Your task to perform on an android device: install app "NewsBreak: Local News & Alerts" Image 0: 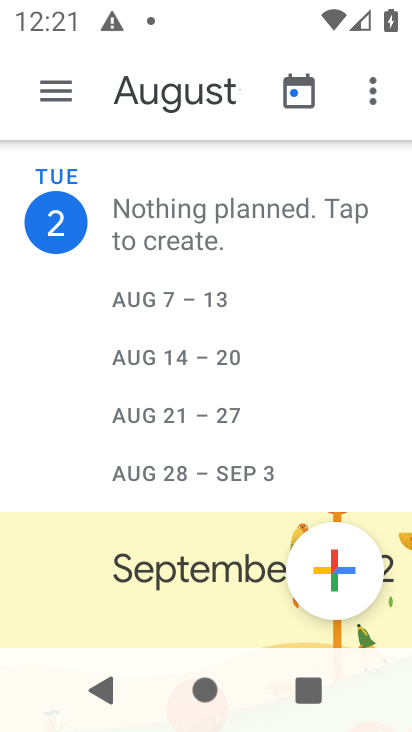
Step 0: press home button
Your task to perform on an android device: install app "NewsBreak: Local News & Alerts" Image 1: 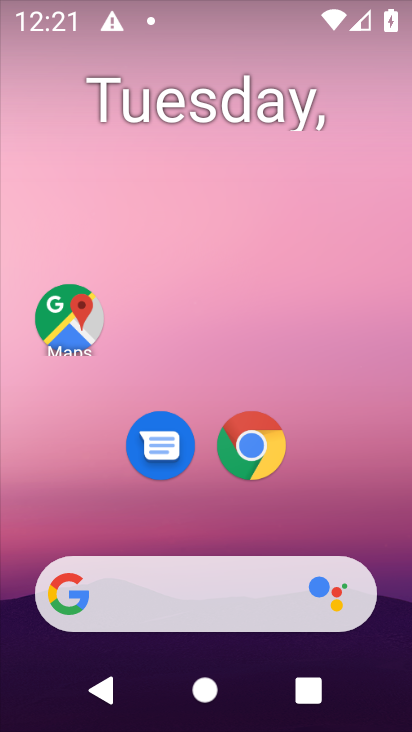
Step 1: drag from (367, 514) to (261, 202)
Your task to perform on an android device: install app "NewsBreak: Local News & Alerts" Image 2: 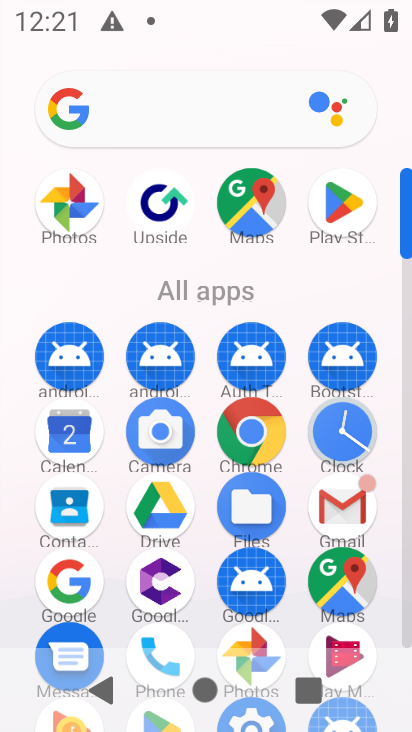
Step 2: click (339, 204)
Your task to perform on an android device: install app "NewsBreak: Local News & Alerts" Image 3: 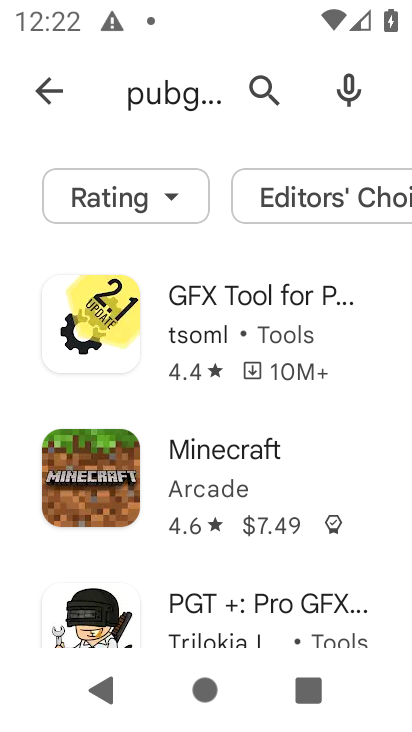
Step 3: click (289, 101)
Your task to perform on an android device: install app "NewsBreak: Local News & Alerts" Image 4: 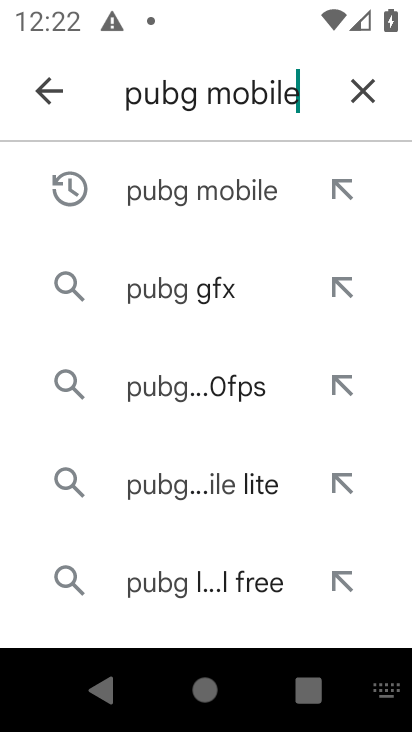
Step 4: click (373, 86)
Your task to perform on an android device: install app "NewsBreak: Local News & Alerts" Image 5: 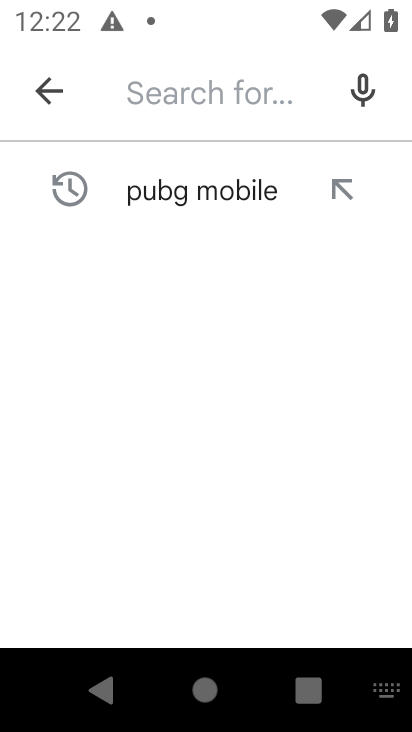
Step 5: type "newsbreak: local news"
Your task to perform on an android device: install app "NewsBreak: Local News & Alerts" Image 6: 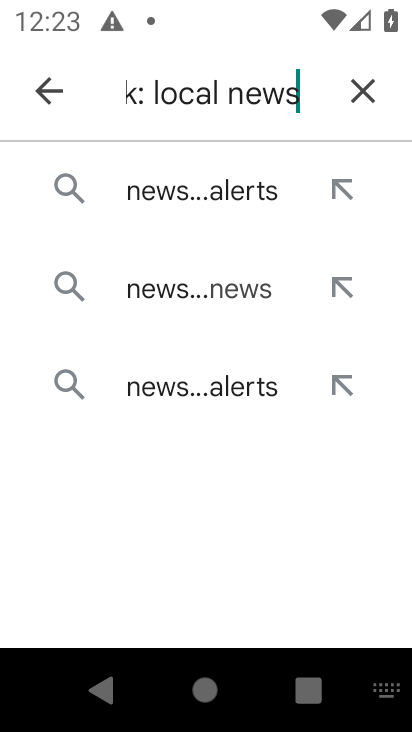
Step 6: click (263, 177)
Your task to perform on an android device: install app "NewsBreak: Local News & Alerts" Image 7: 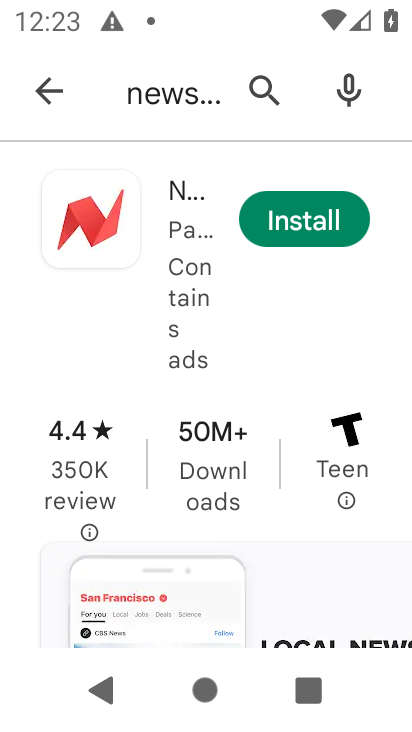
Step 7: click (196, 209)
Your task to perform on an android device: install app "NewsBreak: Local News & Alerts" Image 8: 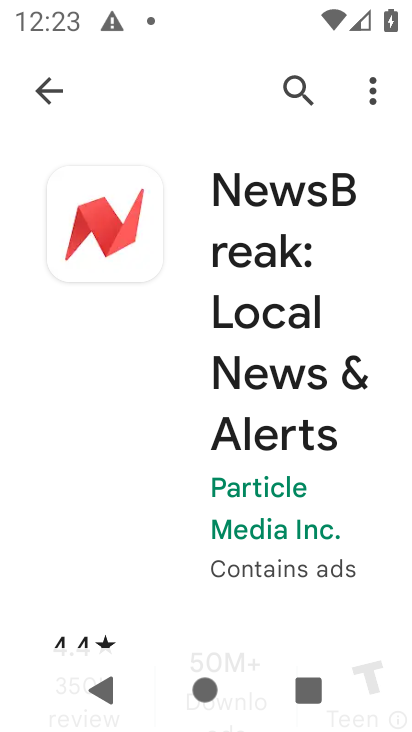
Step 8: drag from (365, 452) to (269, 189)
Your task to perform on an android device: install app "NewsBreak: Local News & Alerts" Image 9: 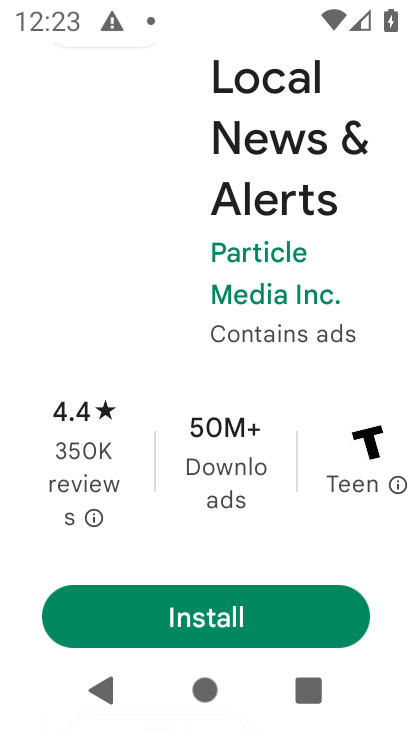
Step 9: click (289, 623)
Your task to perform on an android device: install app "NewsBreak: Local News & Alerts" Image 10: 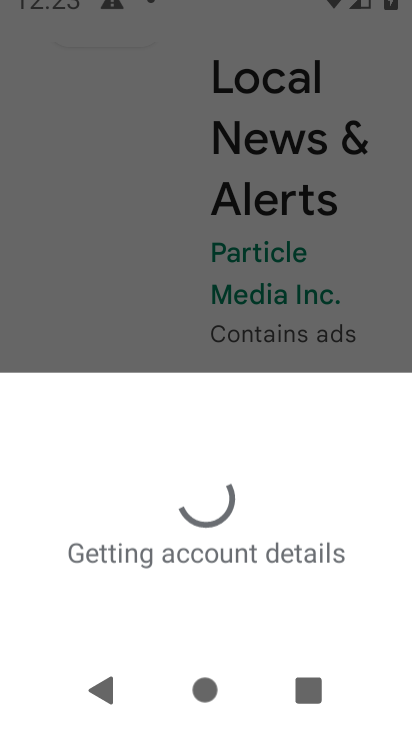
Step 10: drag from (289, 623) to (238, 459)
Your task to perform on an android device: install app "NewsBreak: Local News & Alerts" Image 11: 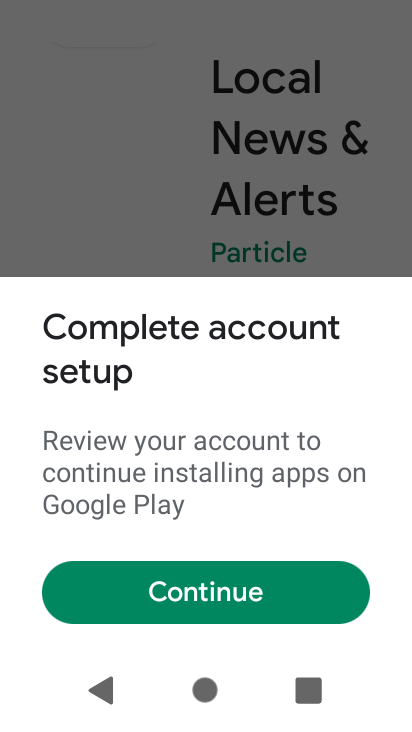
Step 11: click (182, 598)
Your task to perform on an android device: install app "NewsBreak: Local News & Alerts" Image 12: 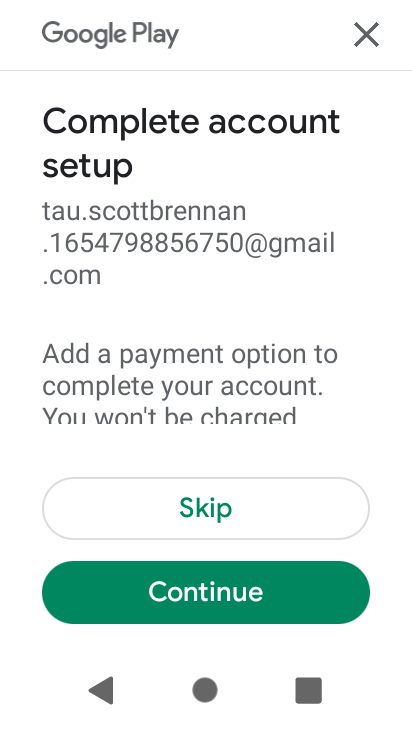
Step 12: click (226, 516)
Your task to perform on an android device: install app "NewsBreak: Local News & Alerts" Image 13: 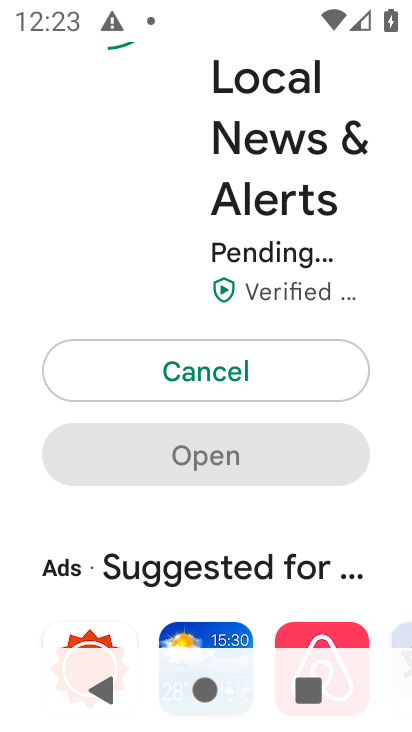
Step 13: task complete